Your task to perform on an android device: turn notification dots on Image 0: 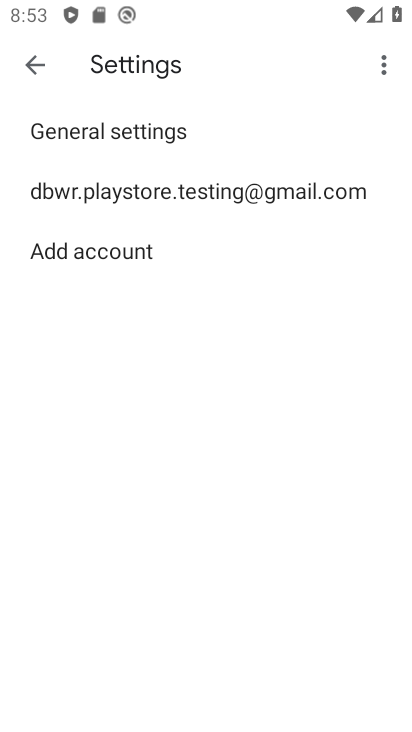
Step 0: press home button
Your task to perform on an android device: turn notification dots on Image 1: 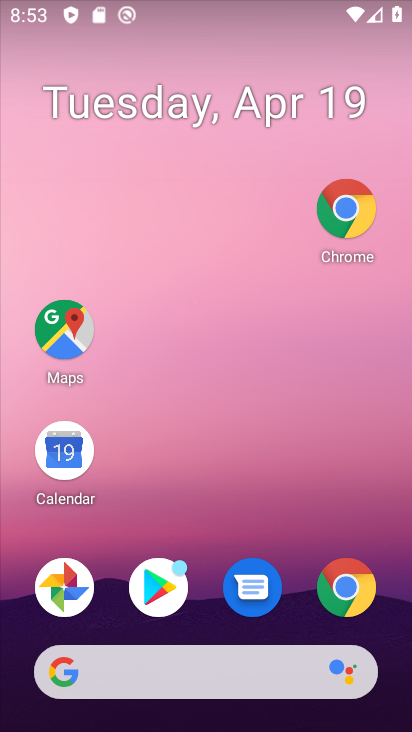
Step 1: drag from (244, 452) to (229, 0)
Your task to perform on an android device: turn notification dots on Image 2: 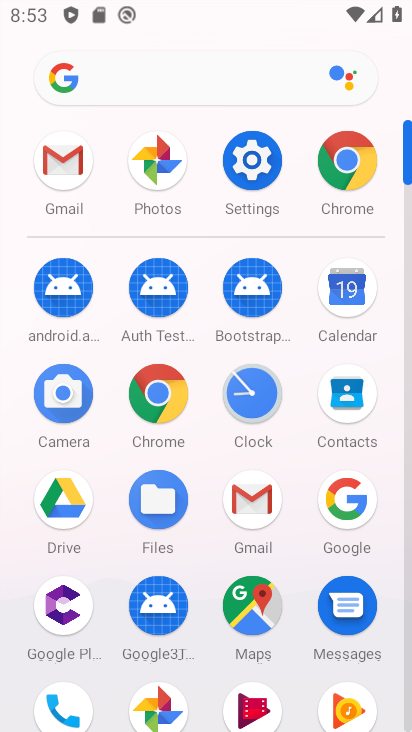
Step 2: click (252, 158)
Your task to perform on an android device: turn notification dots on Image 3: 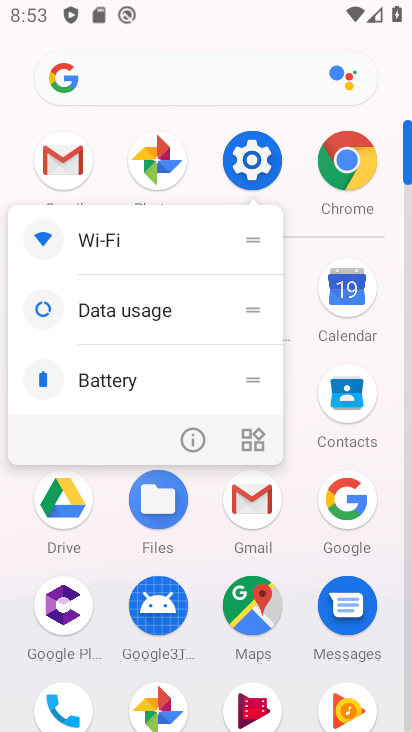
Step 3: click (233, 163)
Your task to perform on an android device: turn notification dots on Image 4: 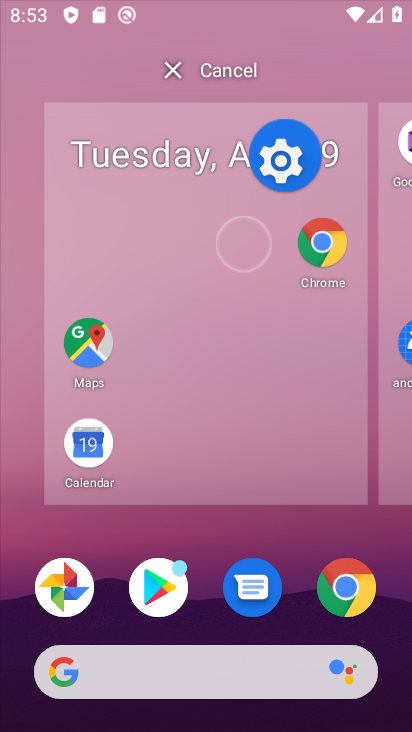
Step 4: click (266, 158)
Your task to perform on an android device: turn notification dots on Image 5: 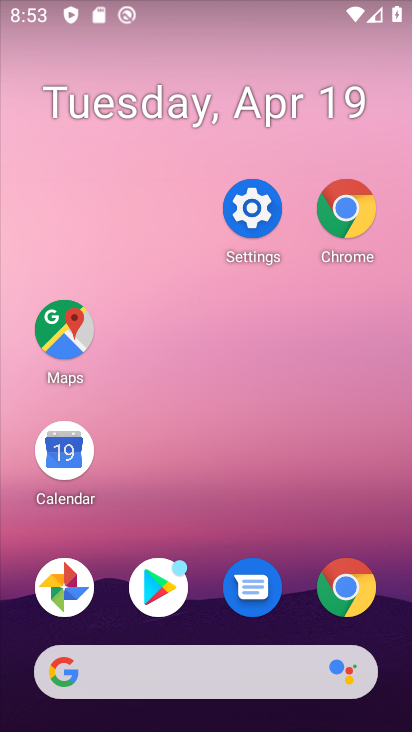
Step 5: drag from (189, 68) to (230, 5)
Your task to perform on an android device: turn notification dots on Image 6: 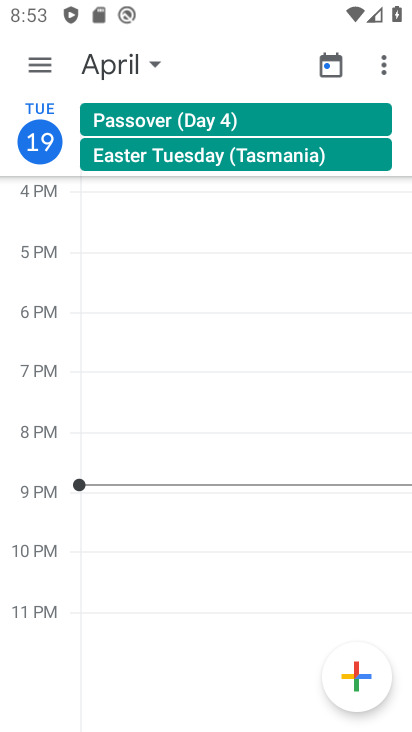
Step 6: press home button
Your task to perform on an android device: turn notification dots on Image 7: 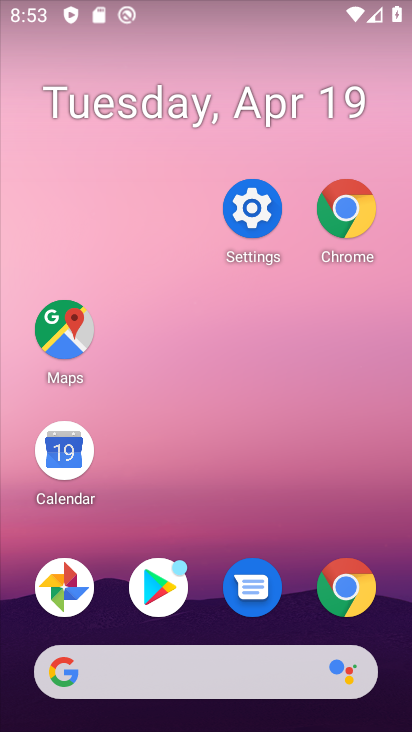
Step 7: drag from (197, 599) to (106, 37)
Your task to perform on an android device: turn notification dots on Image 8: 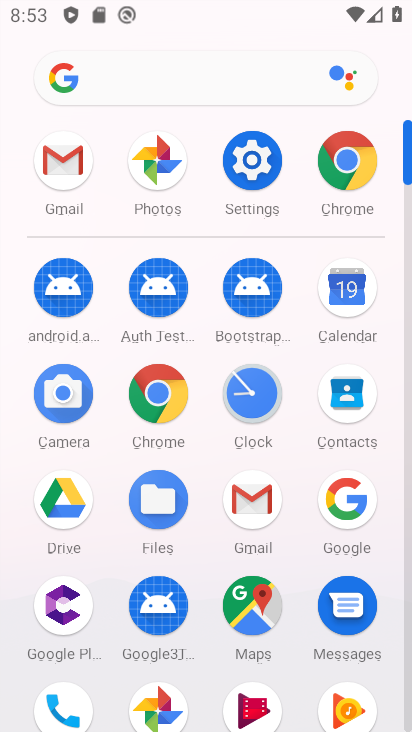
Step 8: click (252, 158)
Your task to perform on an android device: turn notification dots on Image 9: 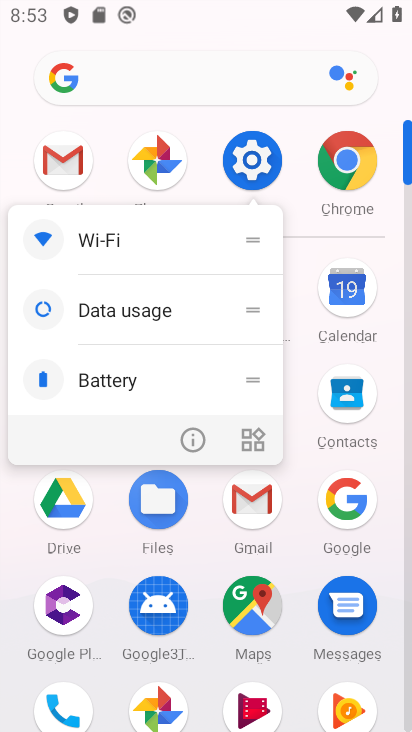
Step 9: click (253, 158)
Your task to perform on an android device: turn notification dots on Image 10: 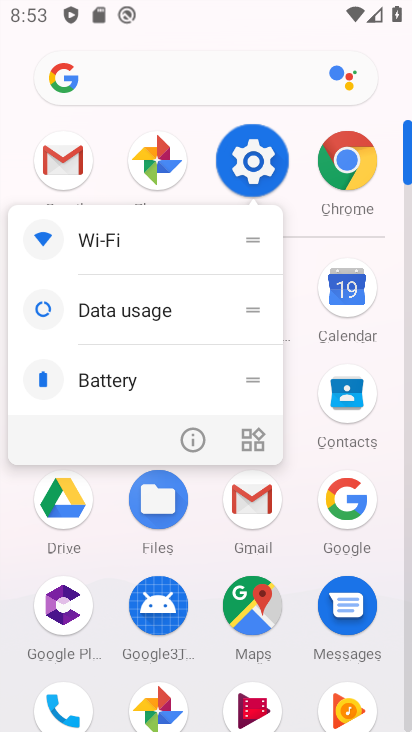
Step 10: click (254, 163)
Your task to perform on an android device: turn notification dots on Image 11: 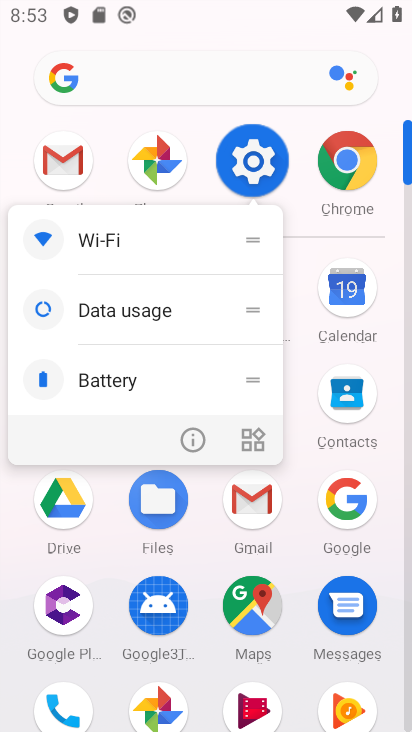
Step 11: click (254, 163)
Your task to perform on an android device: turn notification dots on Image 12: 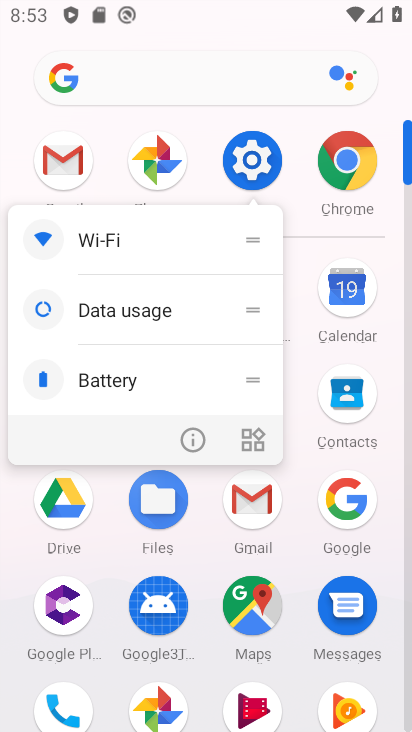
Step 12: click (254, 163)
Your task to perform on an android device: turn notification dots on Image 13: 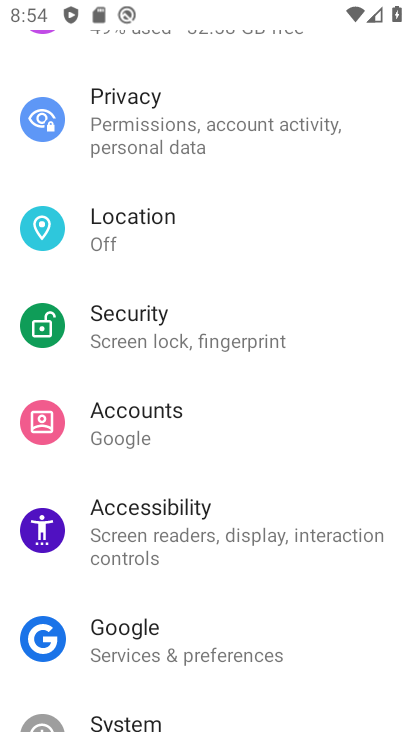
Step 13: drag from (206, 293) to (307, 573)
Your task to perform on an android device: turn notification dots on Image 14: 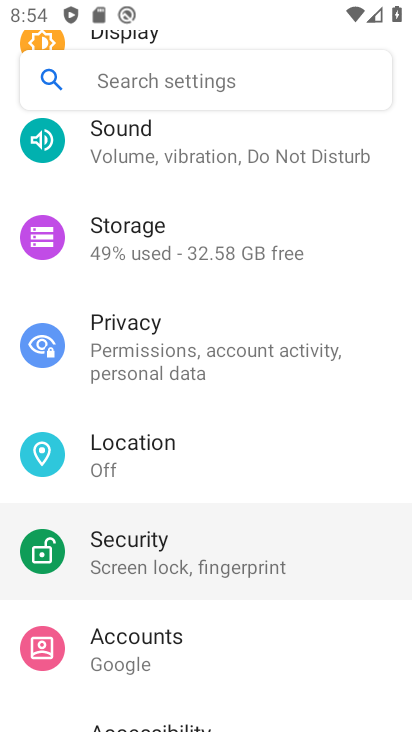
Step 14: drag from (206, 251) to (250, 539)
Your task to perform on an android device: turn notification dots on Image 15: 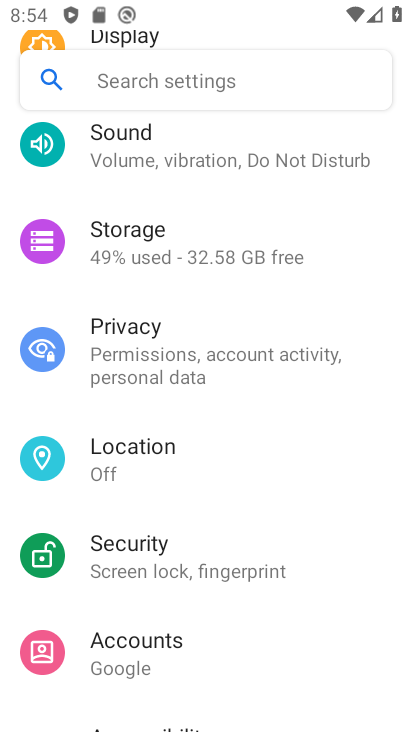
Step 15: drag from (174, 239) to (219, 429)
Your task to perform on an android device: turn notification dots on Image 16: 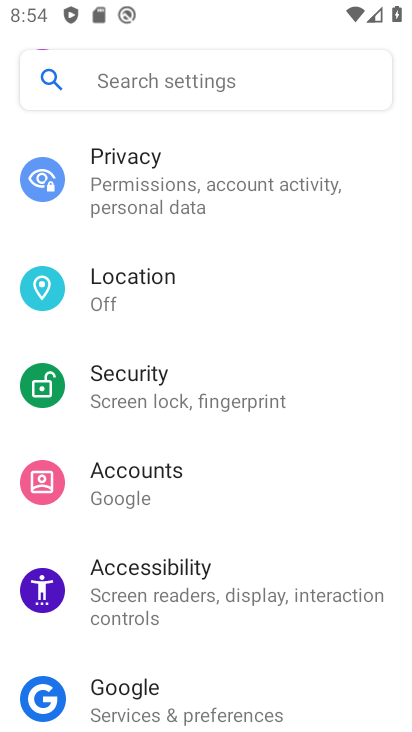
Step 16: drag from (188, 283) to (244, 486)
Your task to perform on an android device: turn notification dots on Image 17: 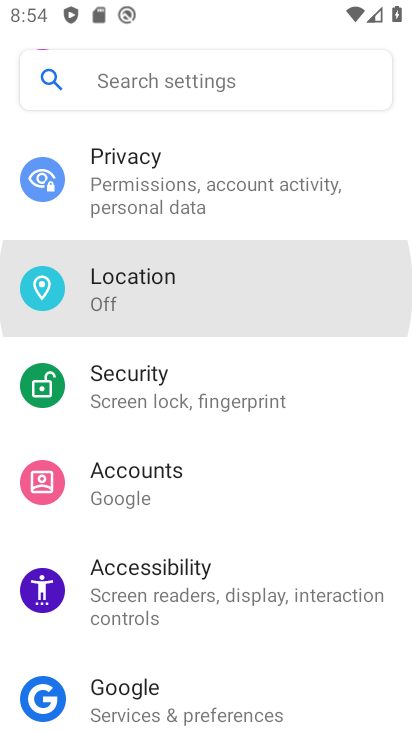
Step 17: drag from (203, 327) to (233, 521)
Your task to perform on an android device: turn notification dots on Image 18: 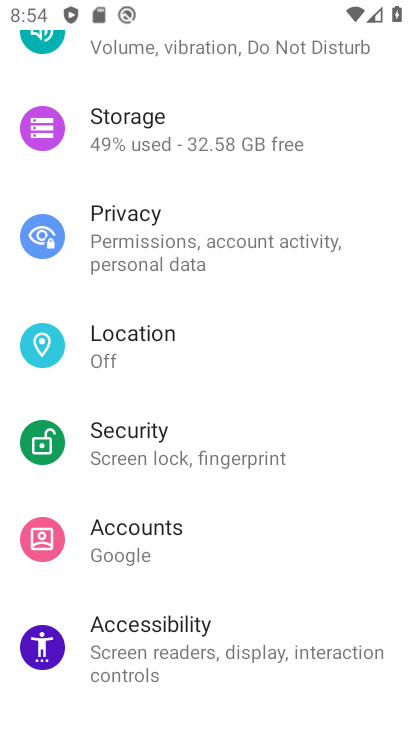
Step 18: drag from (135, 375) to (180, 599)
Your task to perform on an android device: turn notification dots on Image 19: 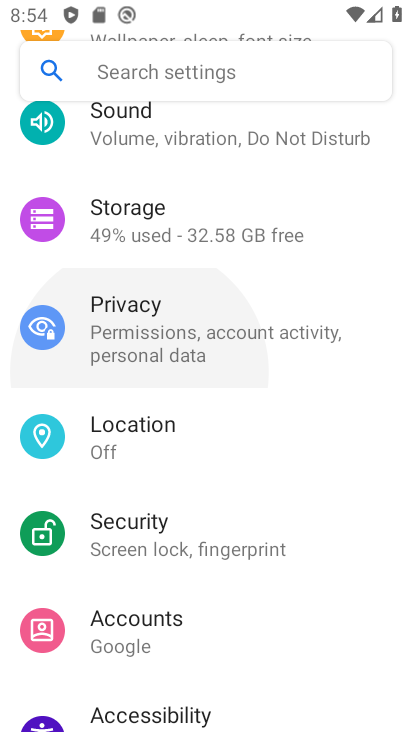
Step 19: drag from (101, 313) to (249, 638)
Your task to perform on an android device: turn notification dots on Image 20: 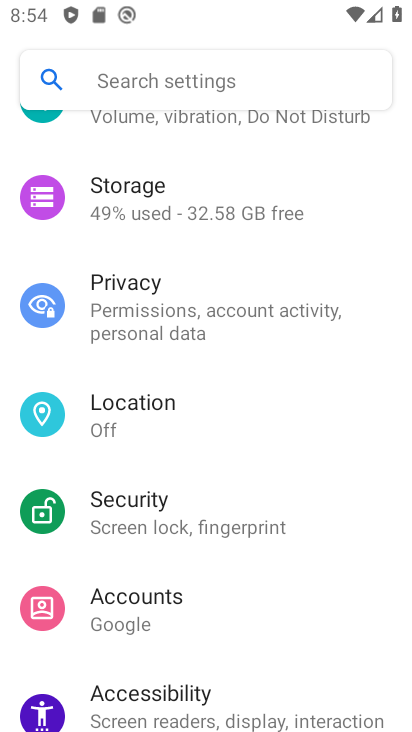
Step 20: click (181, 606)
Your task to perform on an android device: turn notification dots on Image 21: 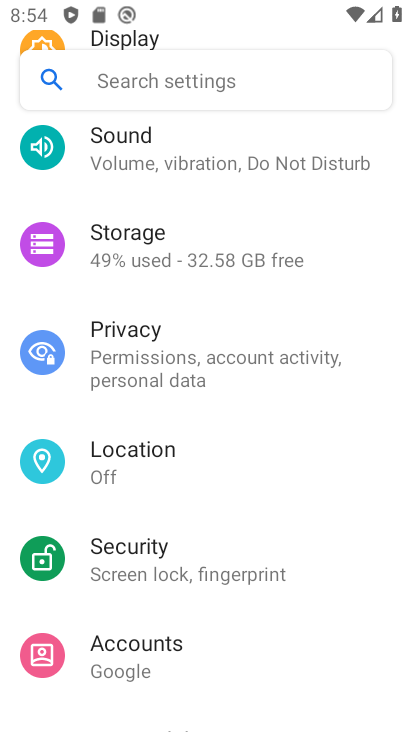
Step 21: drag from (163, 234) to (176, 425)
Your task to perform on an android device: turn notification dots on Image 22: 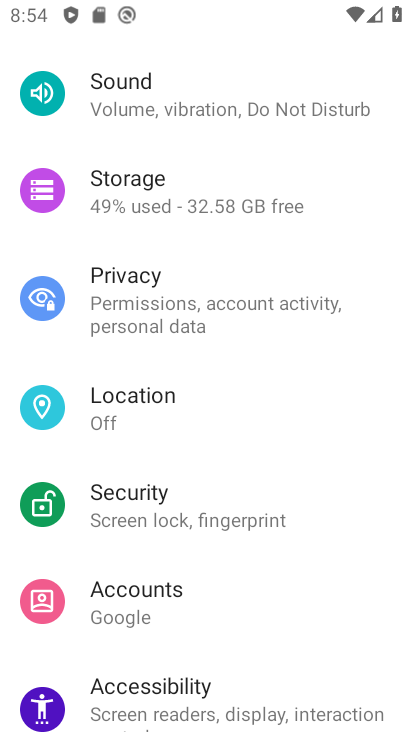
Step 22: click (232, 570)
Your task to perform on an android device: turn notification dots on Image 23: 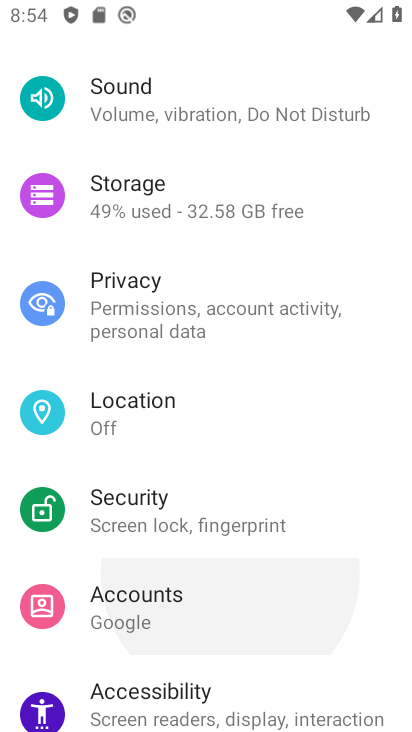
Step 23: click (220, 538)
Your task to perform on an android device: turn notification dots on Image 24: 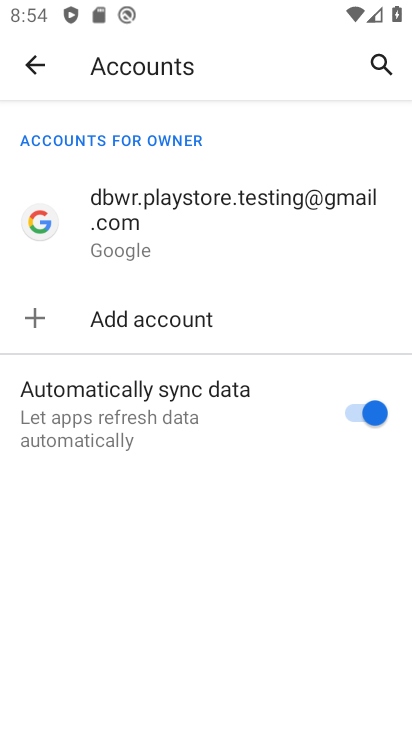
Step 24: drag from (172, 357) to (256, 534)
Your task to perform on an android device: turn notification dots on Image 25: 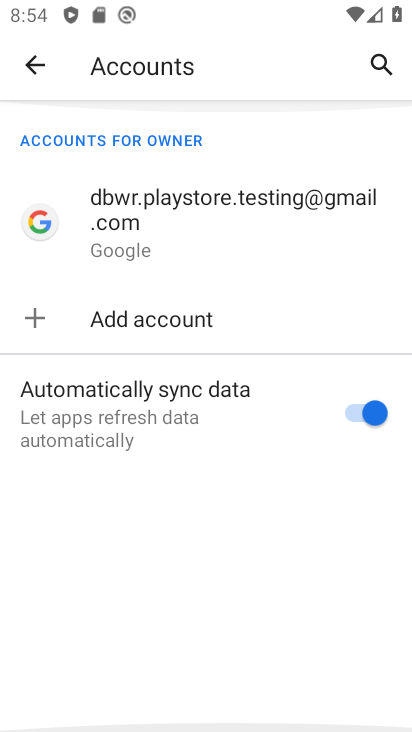
Step 25: click (28, 61)
Your task to perform on an android device: turn notification dots on Image 26: 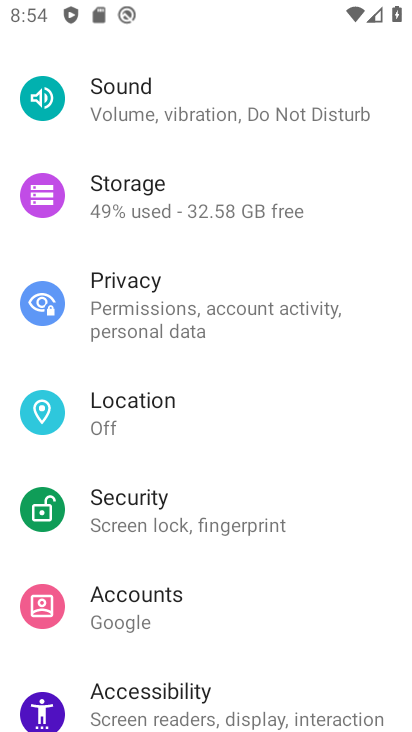
Step 26: drag from (223, 302) to (200, 590)
Your task to perform on an android device: turn notification dots on Image 27: 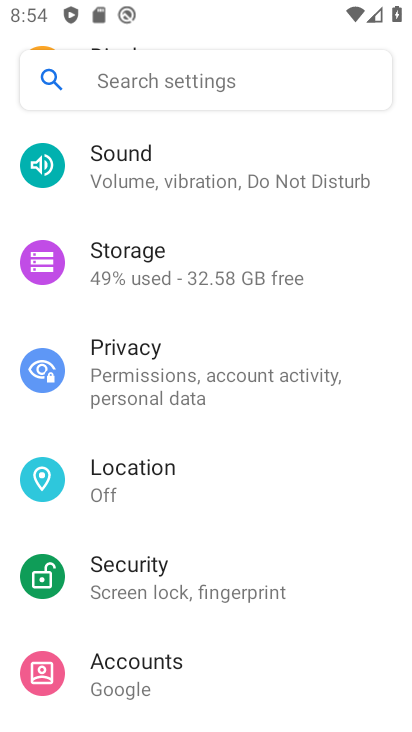
Step 27: drag from (183, 413) to (232, 630)
Your task to perform on an android device: turn notification dots on Image 28: 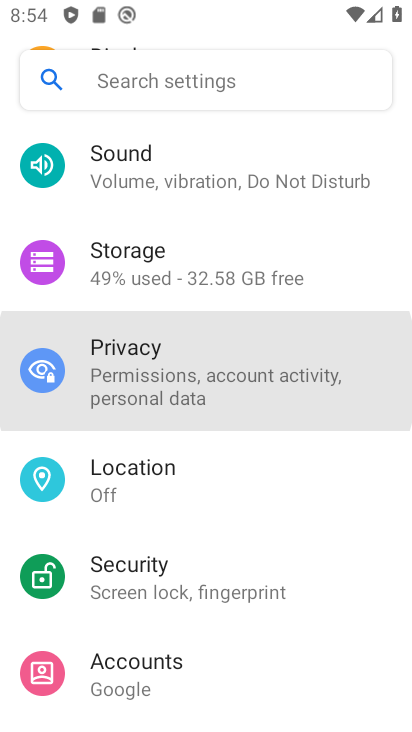
Step 28: drag from (140, 196) to (257, 642)
Your task to perform on an android device: turn notification dots on Image 29: 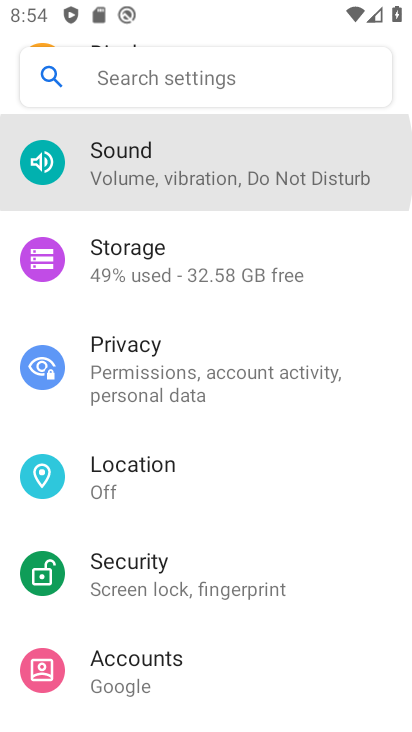
Step 29: drag from (150, 262) to (273, 729)
Your task to perform on an android device: turn notification dots on Image 30: 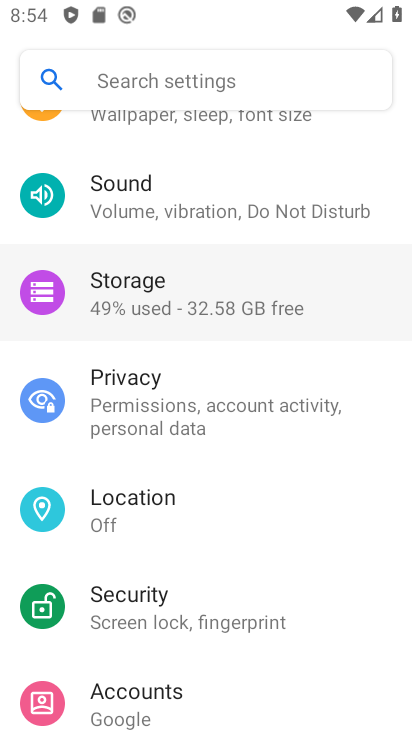
Step 30: drag from (166, 374) to (238, 621)
Your task to perform on an android device: turn notification dots on Image 31: 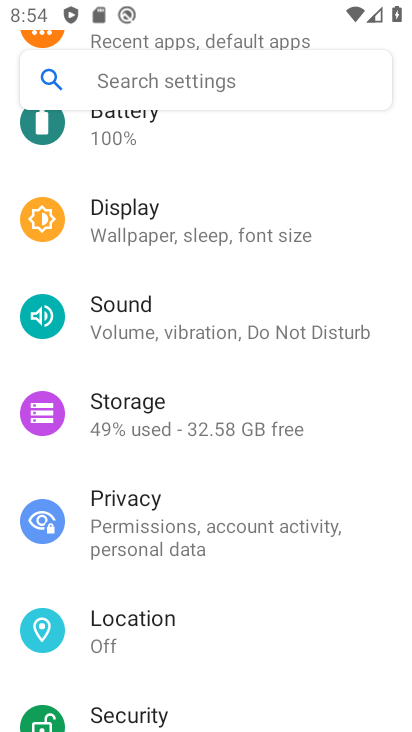
Step 31: drag from (201, 381) to (139, 532)
Your task to perform on an android device: turn notification dots on Image 32: 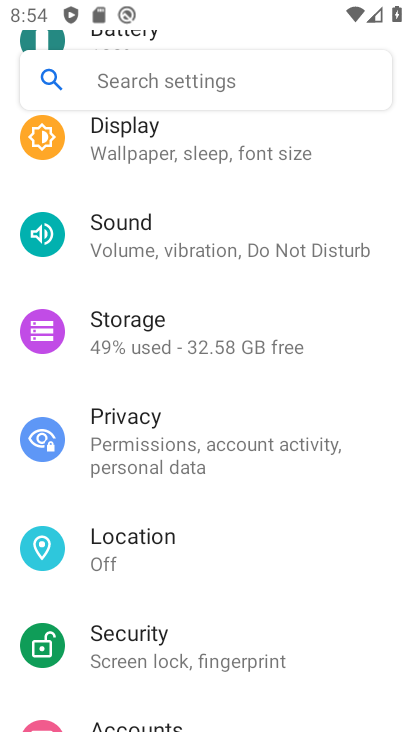
Step 32: drag from (168, 514) to (132, 171)
Your task to perform on an android device: turn notification dots on Image 33: 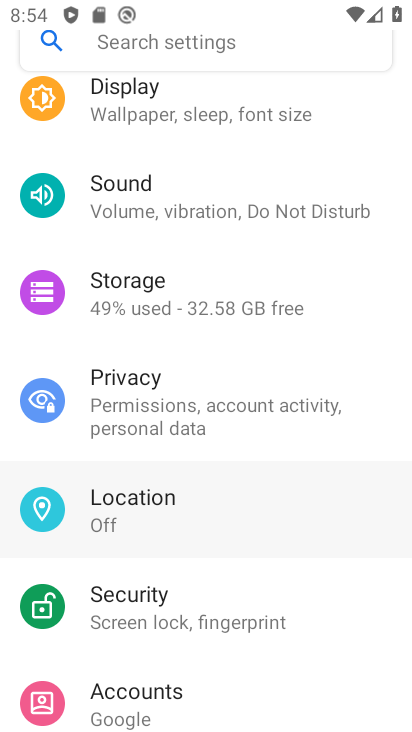
Step 33: drag from (331, 231) to (352, 119)
Your task to perform on an android device: turn notification dots on Image 34: 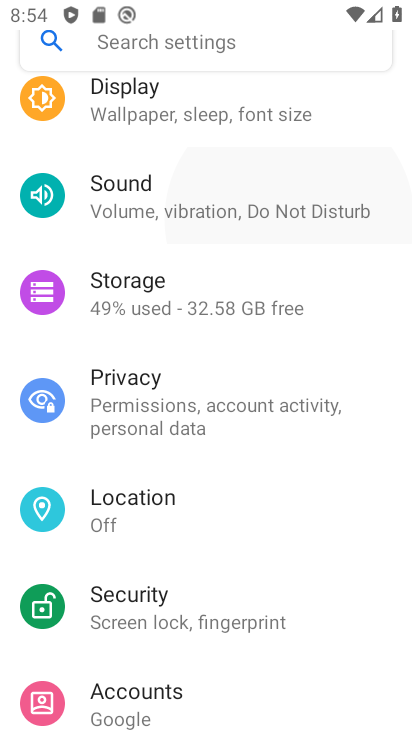
Step 34: drag from (256, 515) to (189, 160)
Your task to perform on an android device: turn notification dots on Image 35: 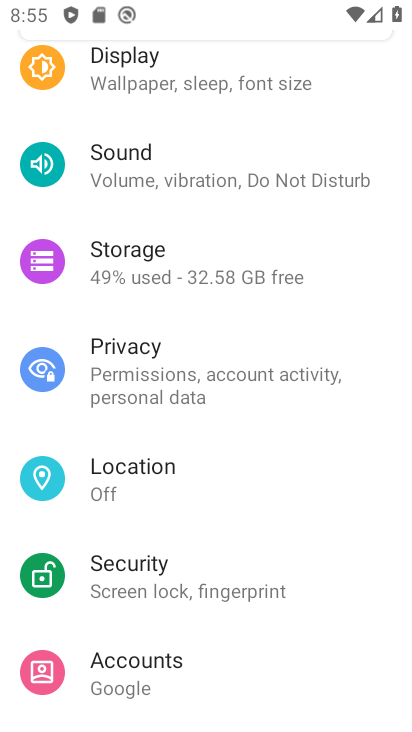
Step 35: drag from (213, 588) to (213, 241)
Your task to perform on an android device: turn notification dots on Image 36: 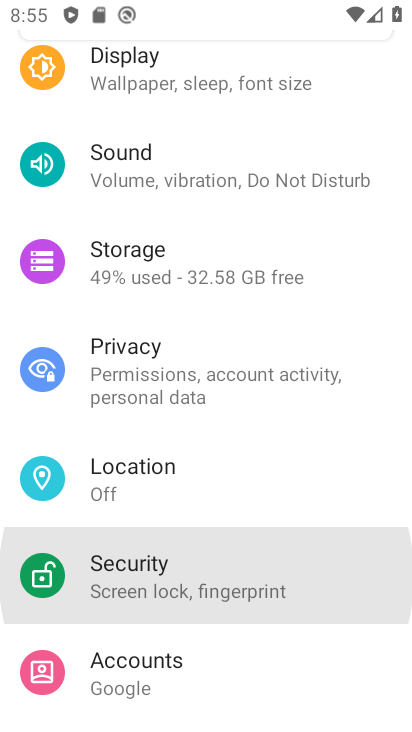
Step 36: drag from (242, 518) to (124, 86)
Your task to perform on an android device: turn notification dots on Image 37: 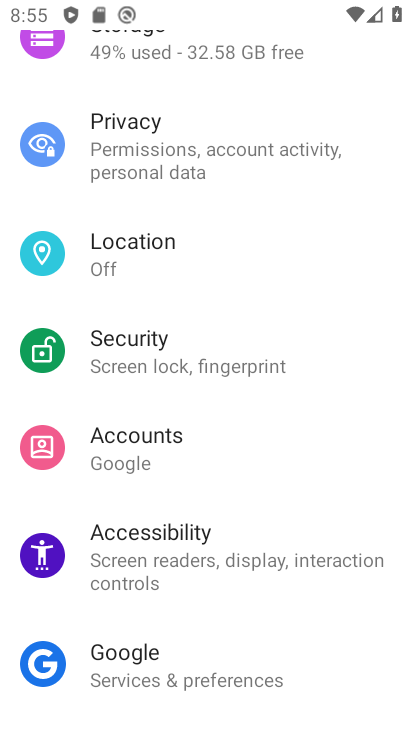
Step 37: drag from (191, 412) to (160, 41)
Your task to perform on an android device: turn notification dots on Image 38: 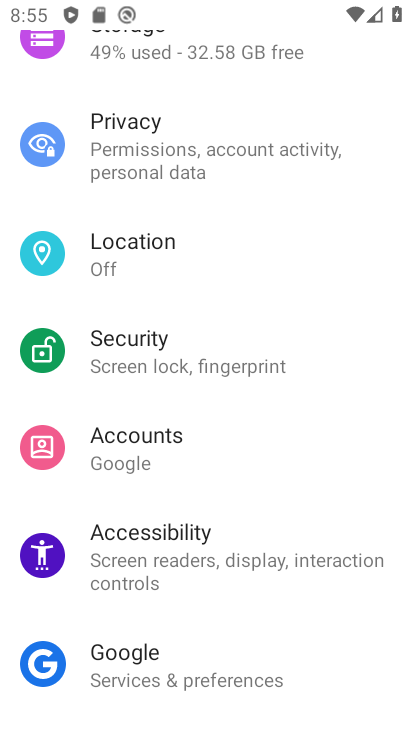
Step 38: drag from (131, 409) to (257, 522)
Your task to perform on an android device: turn notification dots on Image 39: 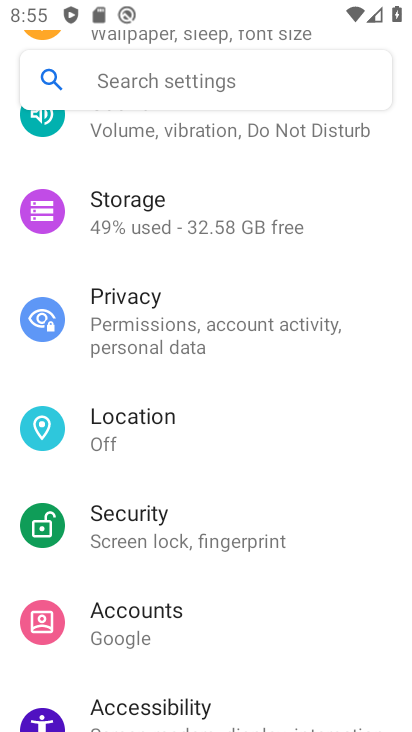
Step 39: drag from (198, 234) to (194, 497)
Your task to perform on an android device: turn notification dots on Image 40: 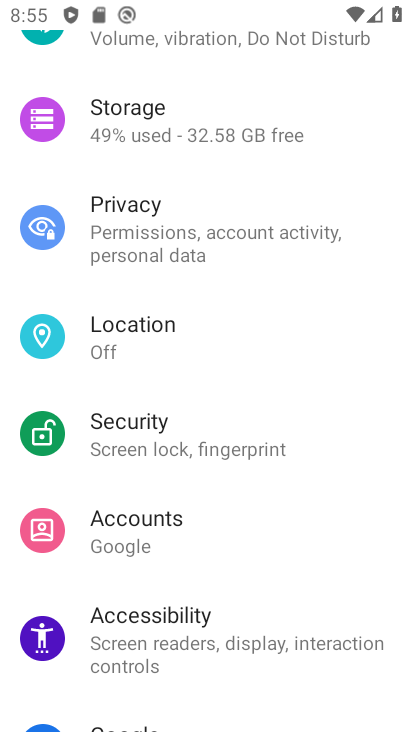
Step 40: drag from (202, 259) to (332, 643)
Your task to perform on an android device: turn notification dots on Image 41: 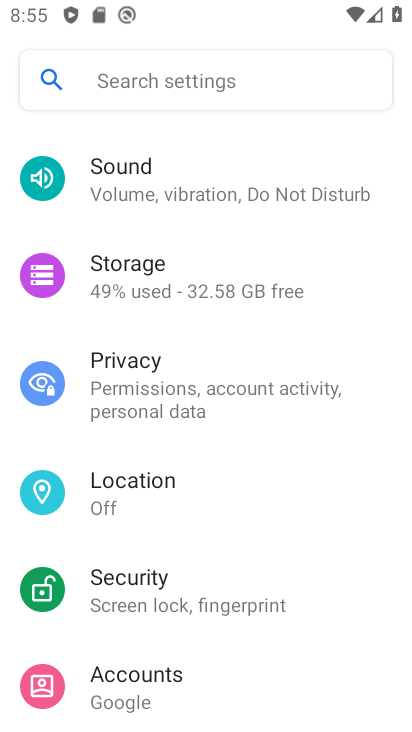
Step 41: drag from (165, 222) to (223, 507)
Your task to perform on an android device: turn notification dots on Image 42: 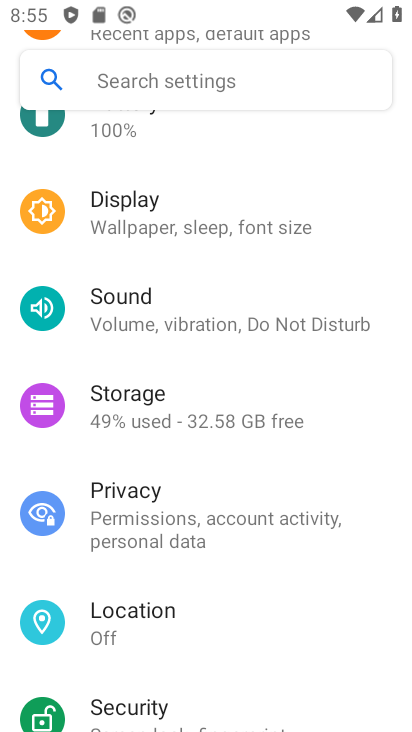
Step 42: click (272, 603)
Your task to perform on an android device: turn notification dots on Image 43: 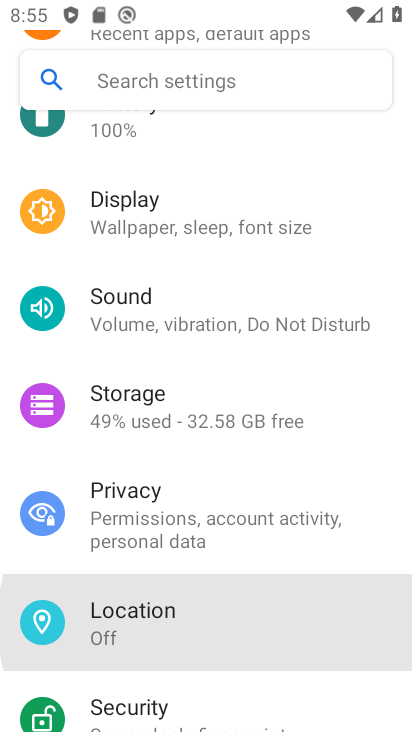
Step 43: click (273, 433)
Your task to perform on an android device: turn notification dots on Image 44: 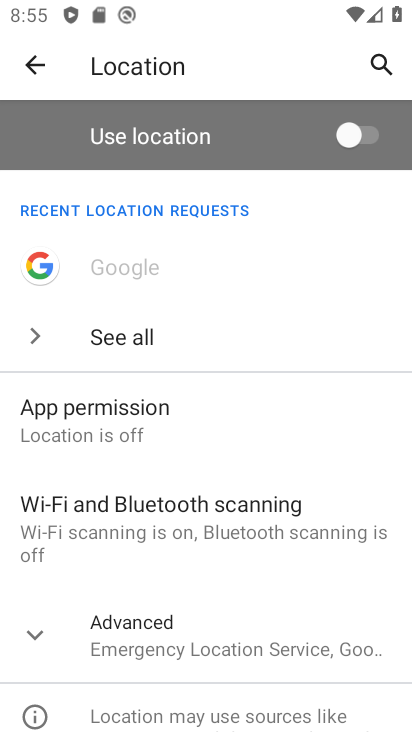
Step 44: click (27, 59)
Your task to perform on an android device: turn notification dots on Image 45: 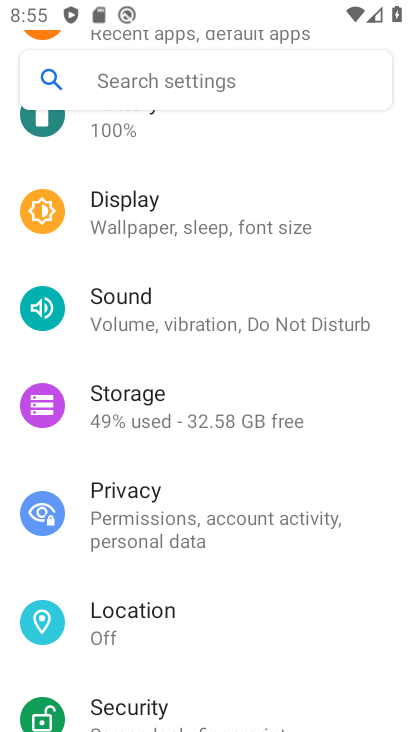
Step 45: drag from (199, 226) to (212, 531)
Your task to perform on an android device: turn notification dots on Image 46: 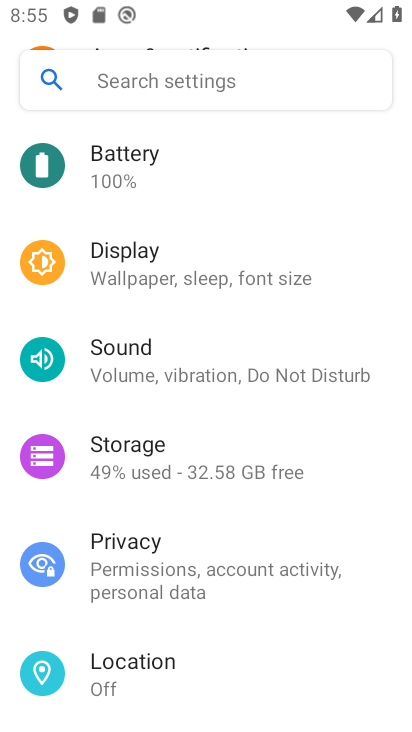
Step 46: drag from (186, 278) to (246, 490)
Your task to perform on an android device: turn notification dots on Image 47: 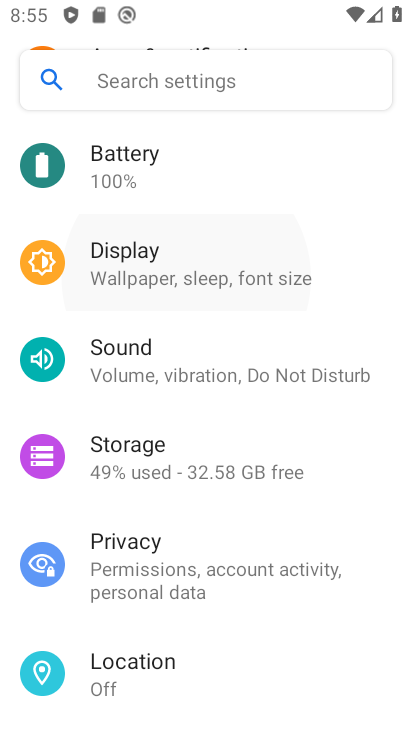
Step 47: drag from (182, 310) to (249, 469)
Your task to perform on an android device: turn notification dots on Image 48: 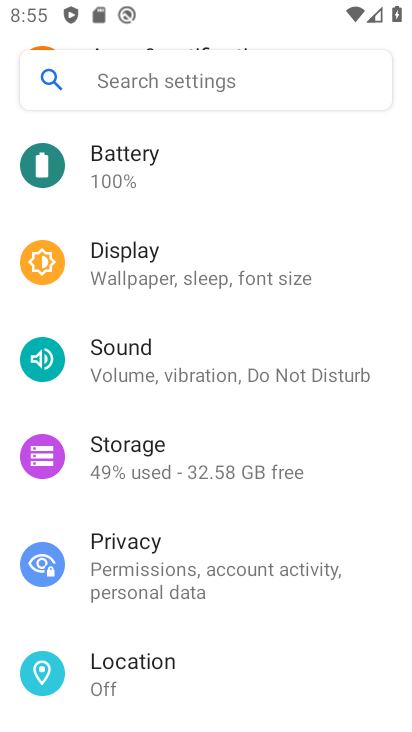
Step 48: drag from (193, 261) to (218, 484)
Your task to perform on an android device: turn notification dots on Image 49: 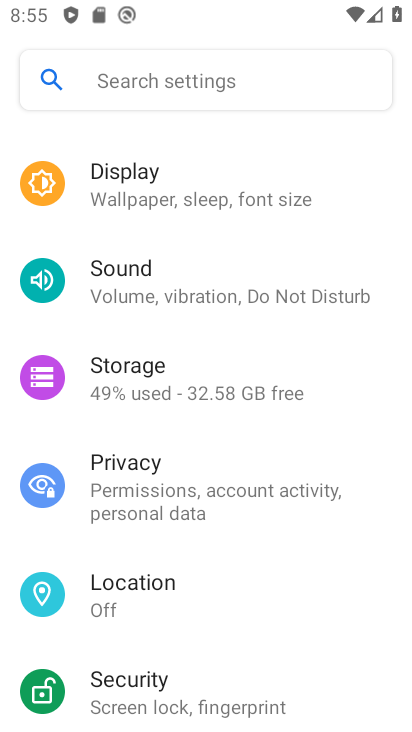
Step 49: drag from (162, 311) to (201, 625)
Your task to perform on an android device: turn notification dots on Image 50: 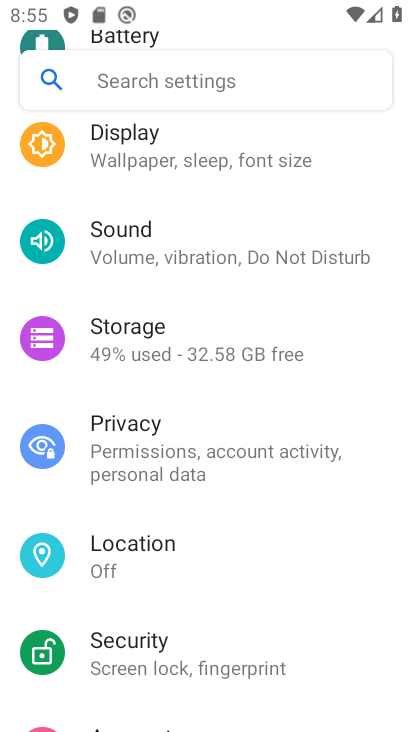
Step 50: drag from (144, 329) to (167, 537)
Your task to perform on an android device: turn notification dots on Image 51: 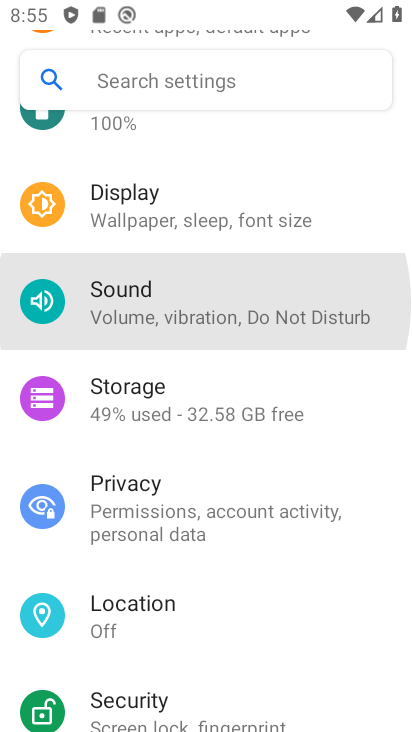
Step 51: drag from (235, 659) to (201, 653)
Your task to perform on an android device: turn notification dots on Image 52: 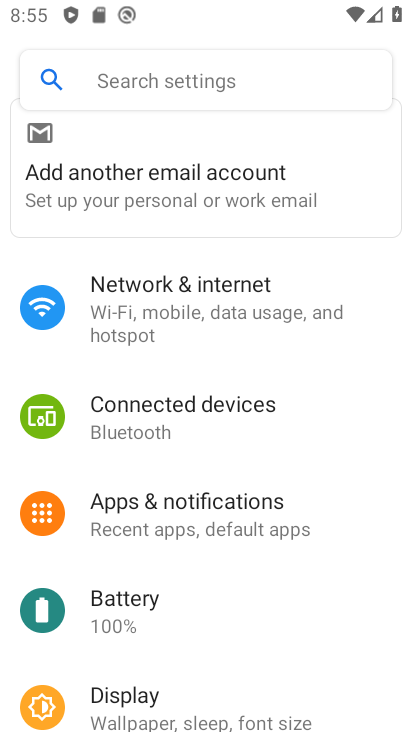
Step 52: click (160, 493)
Your task to perform on an android device: turn notification dots on Image 53: 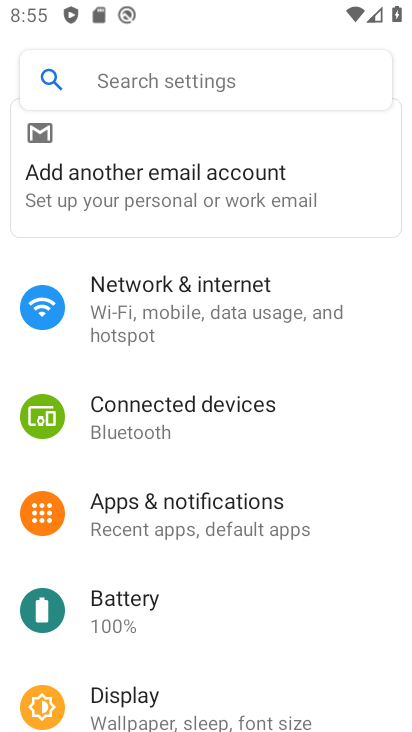
Step 53: click (165, 512)
Your task to perform on an android device: turn notification dots on Image 54: 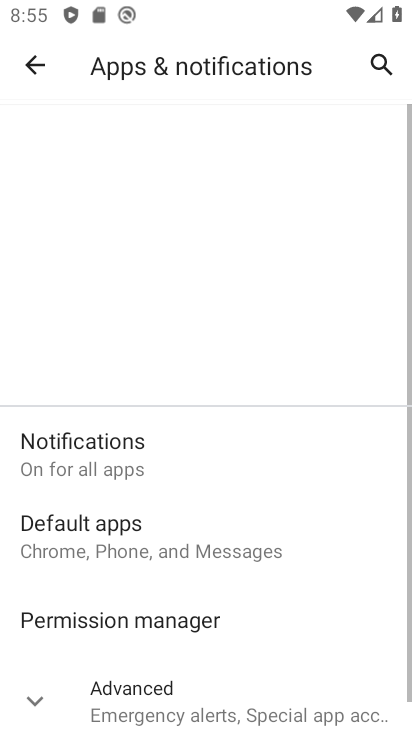
Step 54: click (165, 512)
Your task to perform on an android device: turn notification dots on Image 55: 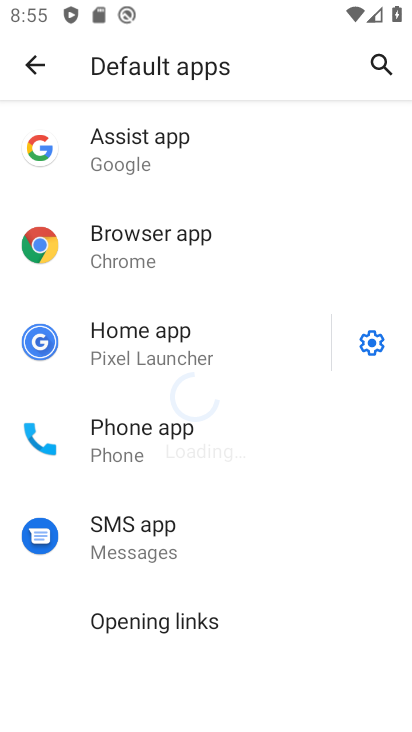
Step 55: drag from (139, 425) to (123, 221)
Your task to perform on an android device: turn notification dots on Image 56: 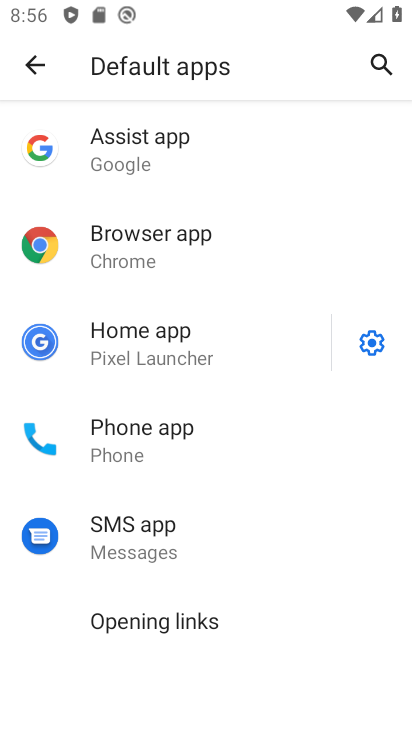
Step 56: click (23, 69)
Your task to perform on an android device: turn notification dots on Image 57: 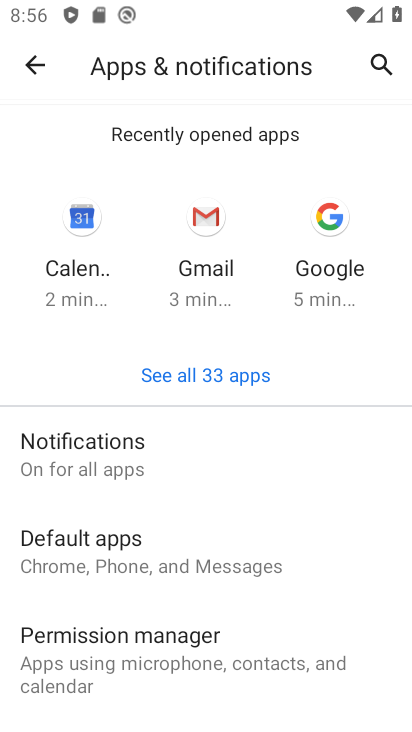
Step 57: click (77, 457)
Your task to perform on an android device: turn notification dots on Image 58: 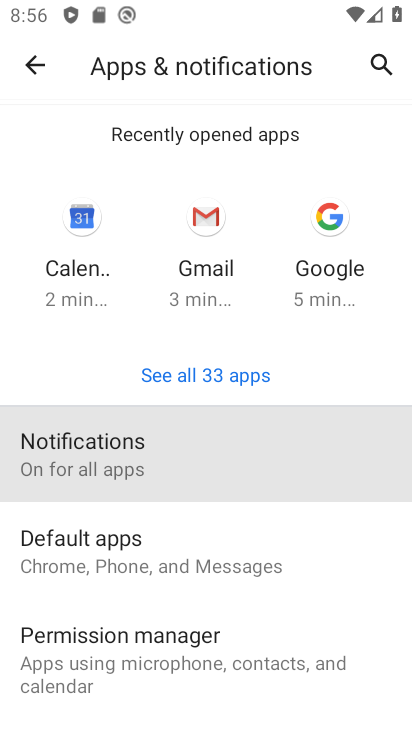
Step 58: click (85, 438)
Your task to perform on an android device: turn notification dots on Image 59: 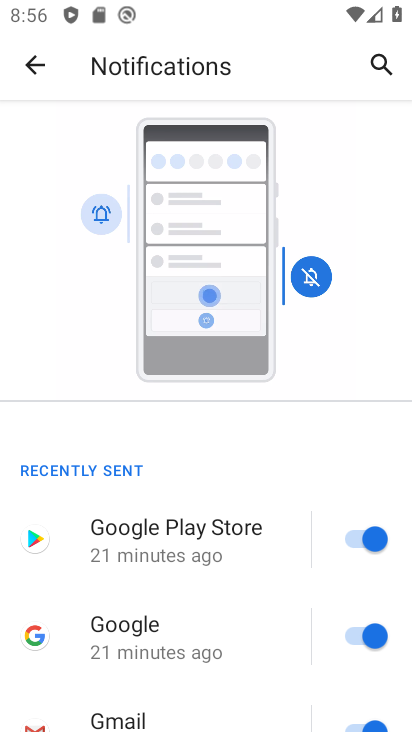
Step 59: drag from (183, 569) to (80, 45)
Your task to perform on an android device: turn notification dots on Image 60: 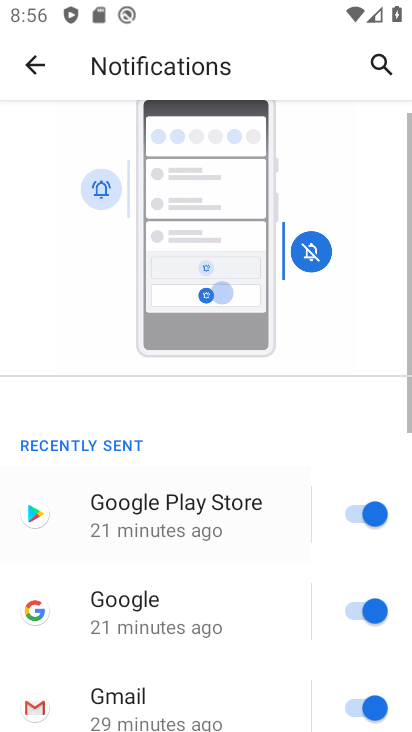
Step 60: drag from (236, 577) to (172, 217)
Your task to perform on an android device: turn notification dots on Image 61: 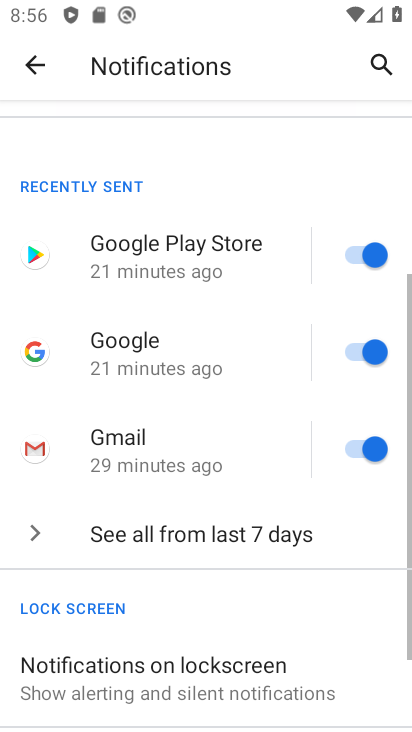
Step 61: drag from (174, 571) to (174, 211)
Your task to perform on an android device: turn notification dots on Image 62: 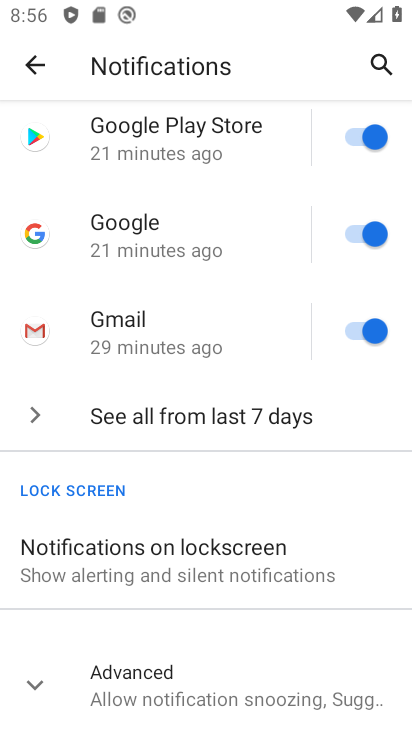
Step 62: click (158, 682)
Your task to perform on an android device: turn notification dots on Image 63: 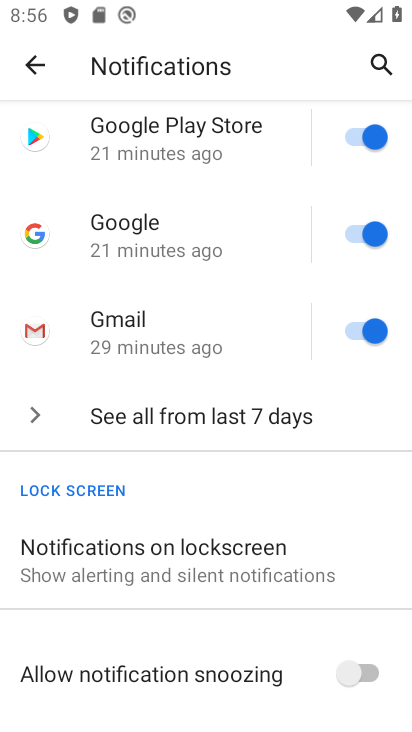
Step 63: click (130, 312)
Your task to perform on an android device: turn notification dots on Image 64: 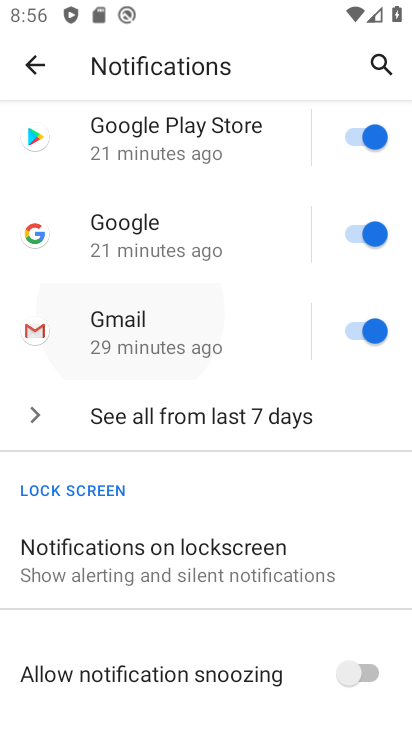
Step 64: drag from (191, 445) to (156, 195)
Your task to perform on an android device: turn notification dots on Image 65: 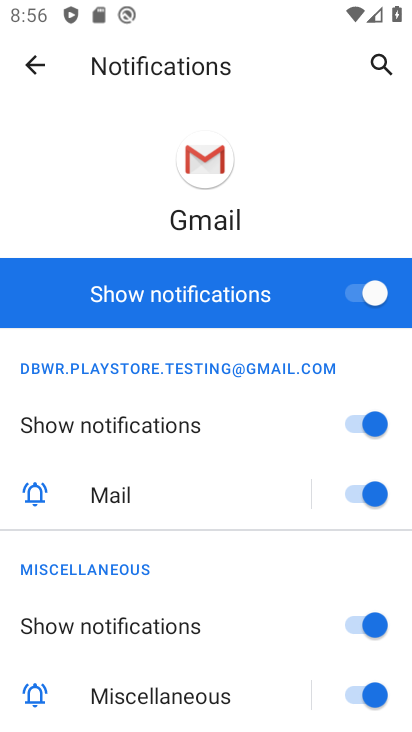
Step 65: drag from (187, 502) to (160, 251)
Your task to perform on an android device: turn notification dots on Image 66: 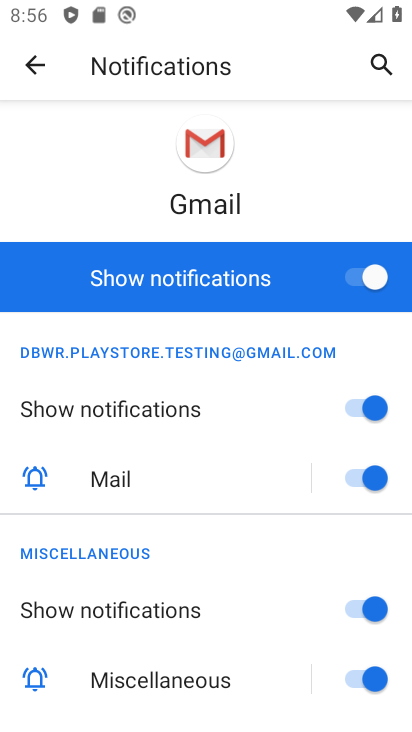
Step 66: drag from (237, 573) to (194, 194)
Your task to perform on an android device: turn notification dots on Image 67: 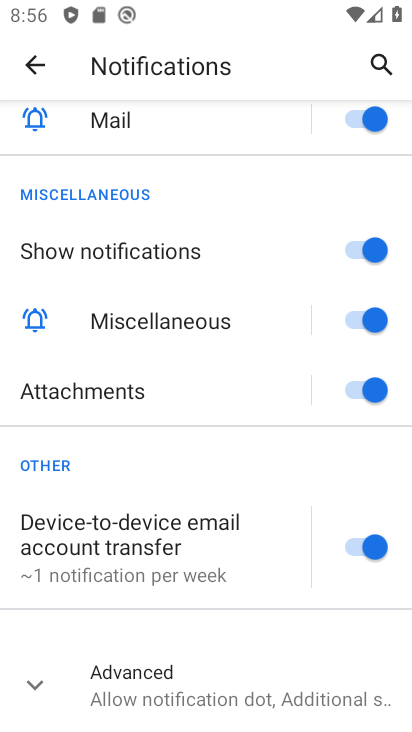
Step 67: click (164, 694)
Your task to perform on an android device: turn notification dots on Image 68: 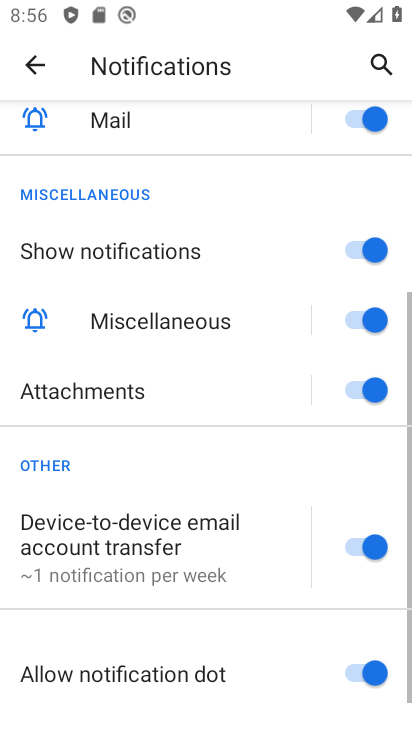
Step 68: drag from (178, 595) to (161, 218)
Your task to perform on an android device: turn notification dots on Image 69: 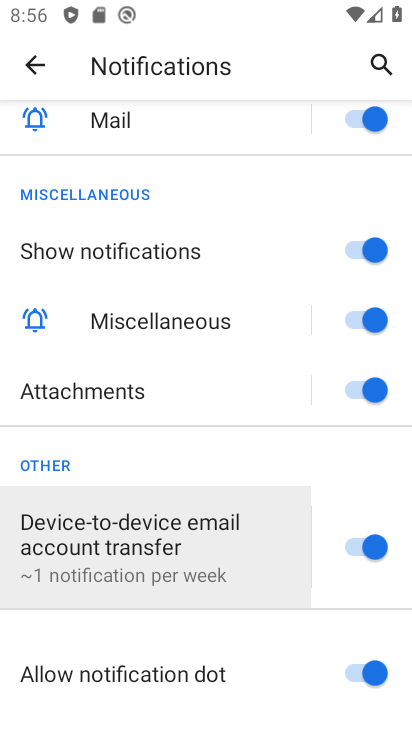
Step 69: drag from (203, 445) to (226, 2)
Your task to perform on an android device: turn notification dots on Image 70: 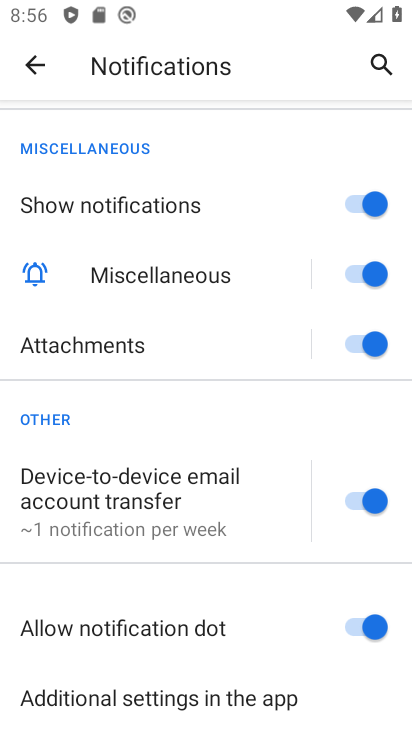
Step 70: click (372, 624)
Your task to perform on an android device: turn notification dots on Image 71: 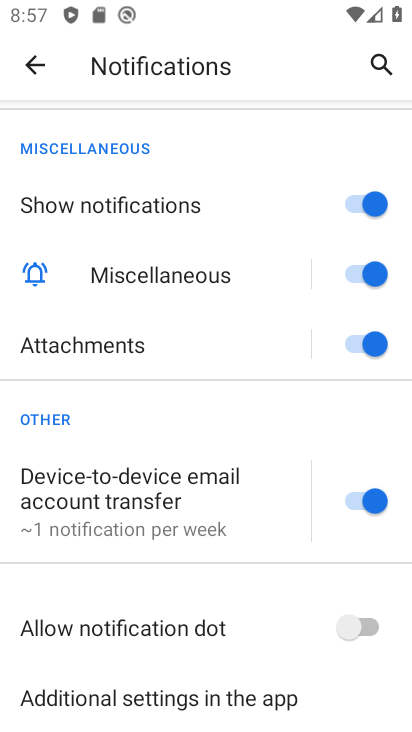
Step 71: task complete